Your task to perform on an android device: Open privacy settings Image 0: 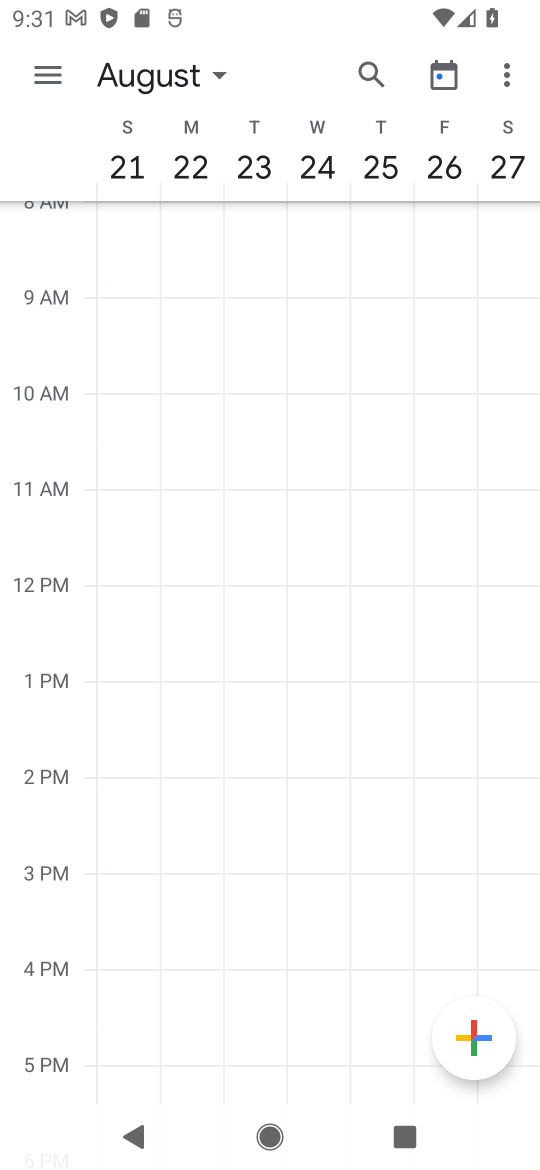
Step 0: press home button
Your task to perform on an android device: Open privacy settings Image 1: 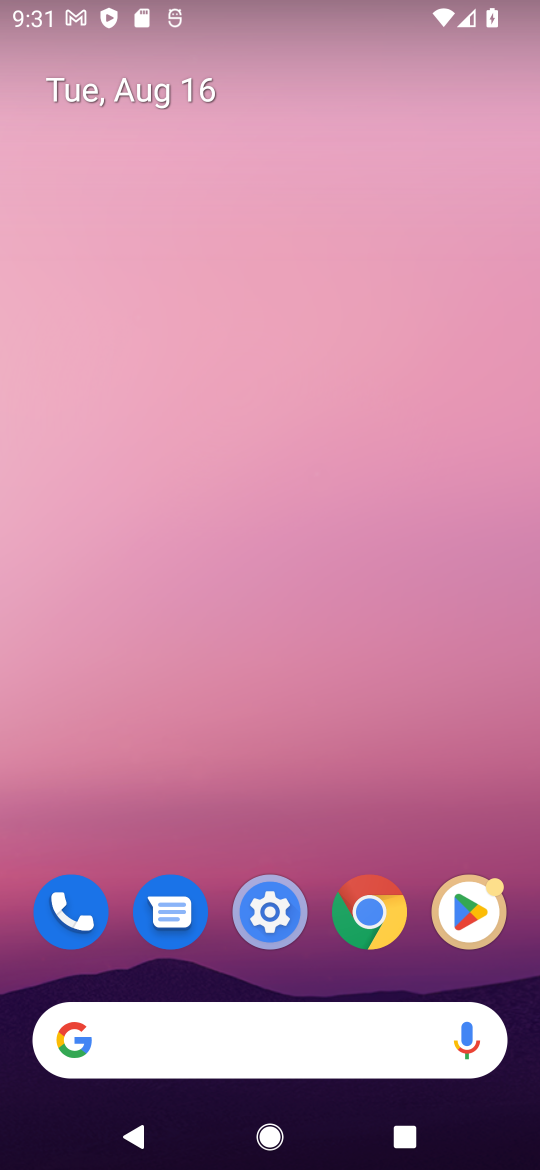
Step 1: click (287, 918)
Your task to perform on an android device: Open privacy settings Image 2: 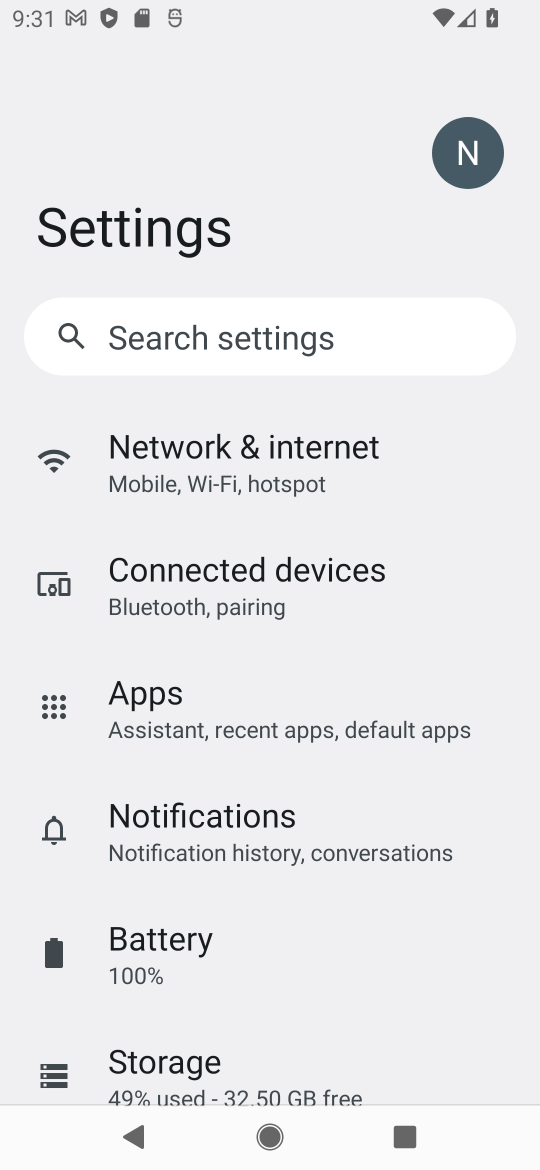
Step 2: drag from (287, 918) to (300, 201)
Your task to perform on an android device: Open privacy settings Image 3: 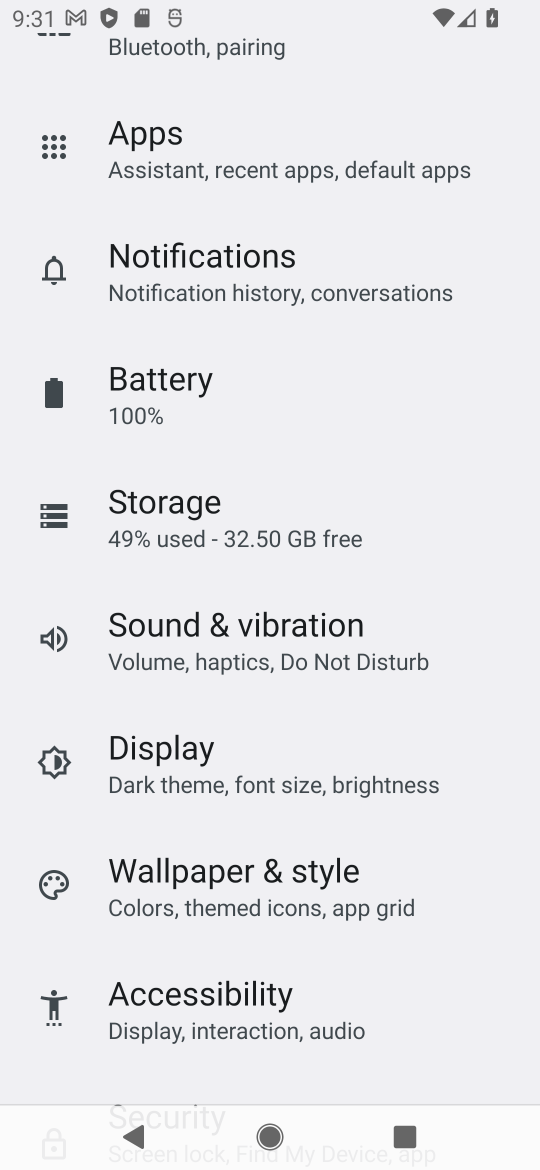
Step 3: drag from (169, 899) to (104, 189)
Your task to perform on an android device: Open privacy settings Image 4: 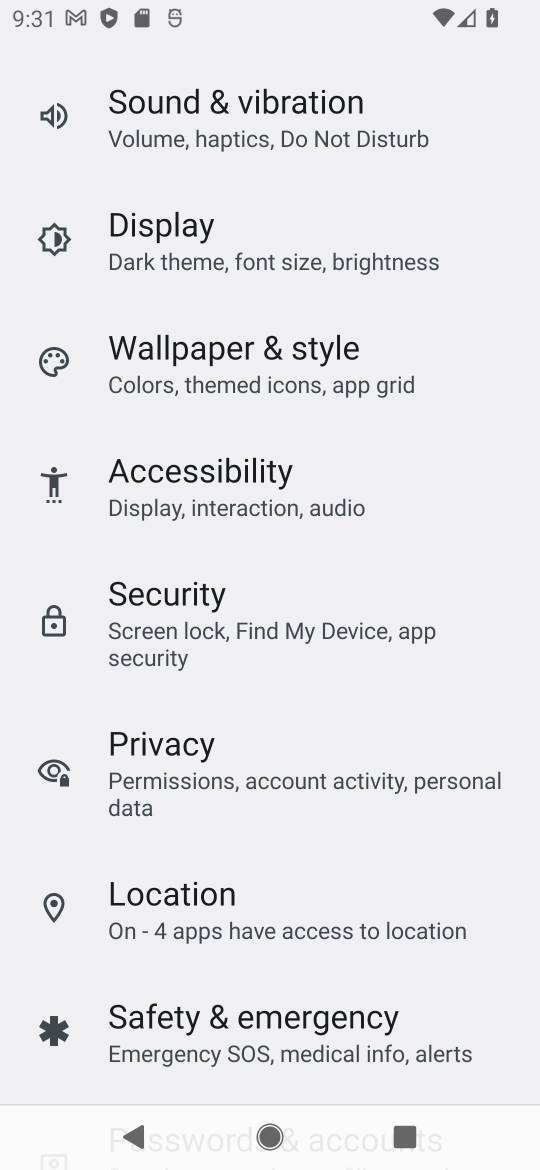
Step 4: click (346, 738)
Your task to perform on an android device: Open privacy settings Image 5: 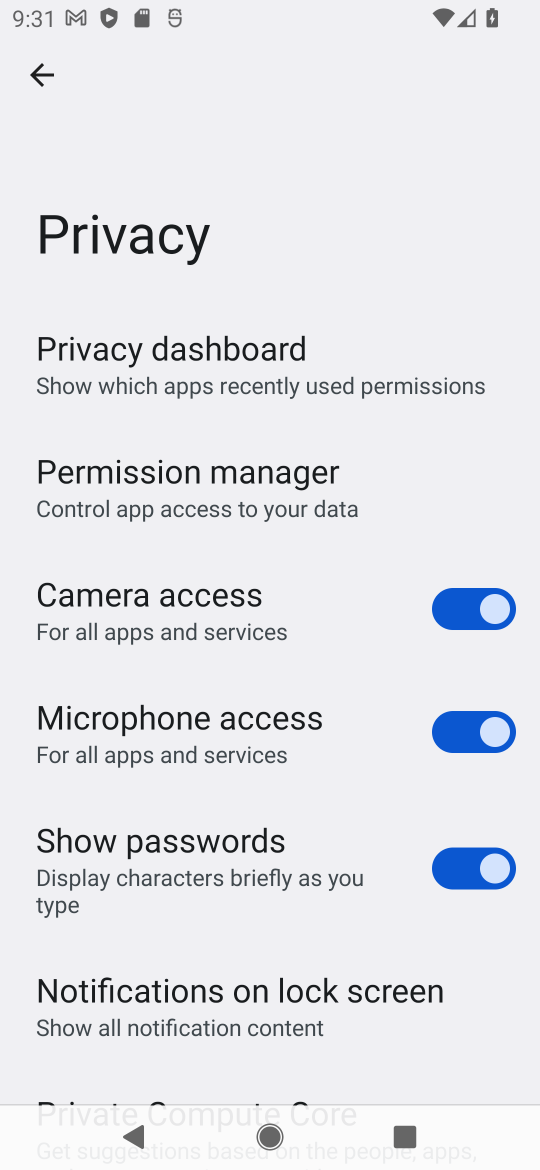
Step 5: task complete